Your task to perform on an android device: add a contact Image 0: 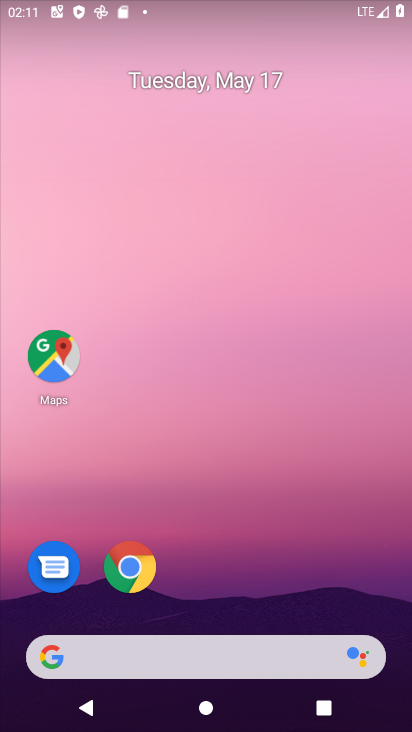
Step 0: drag from (393, 622) to (315, 28)
Your task to perform on an android device: add a contact Image 1: 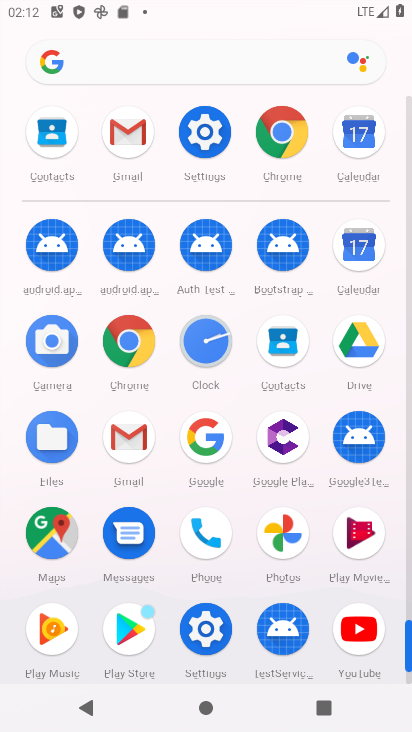
Step 1: click (283, 341)
Your task to perform on an android device: add a contact Image 2: 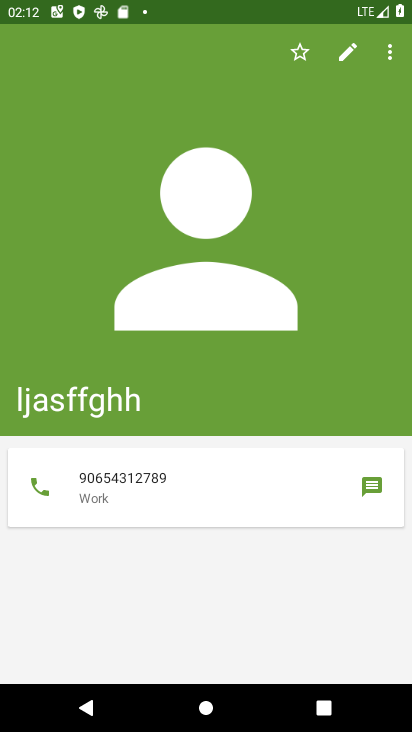
Step 2: press back button
Your task to perform on an android device: add a contact Image 3: 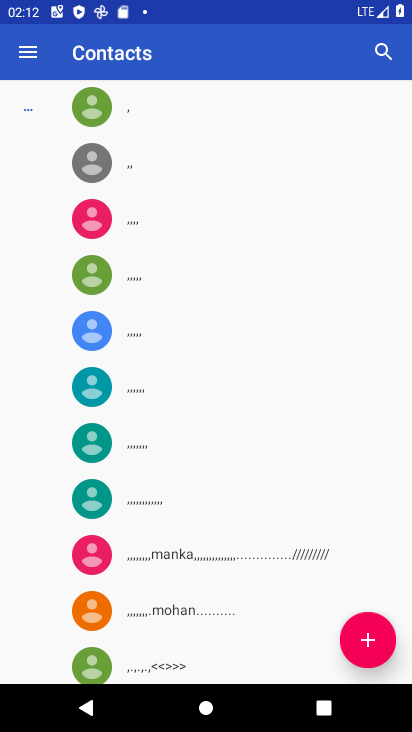
Step 3: click (371, 638)
Your task to perform on an android device: add a contact Image 4: 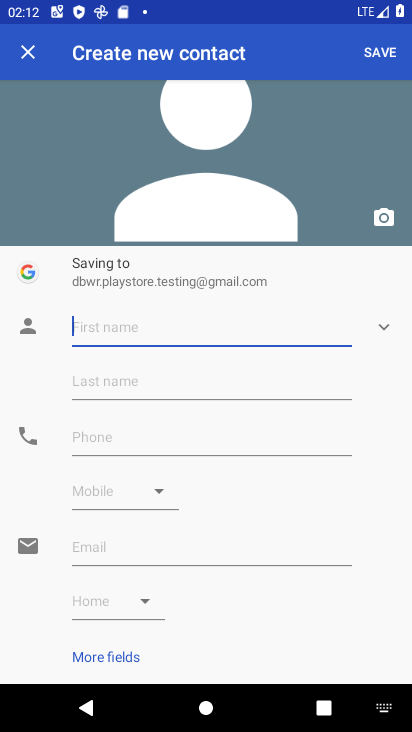
Step 4: type "lasfghjj"
Your task to perform on an android device: add a contact Image 5: 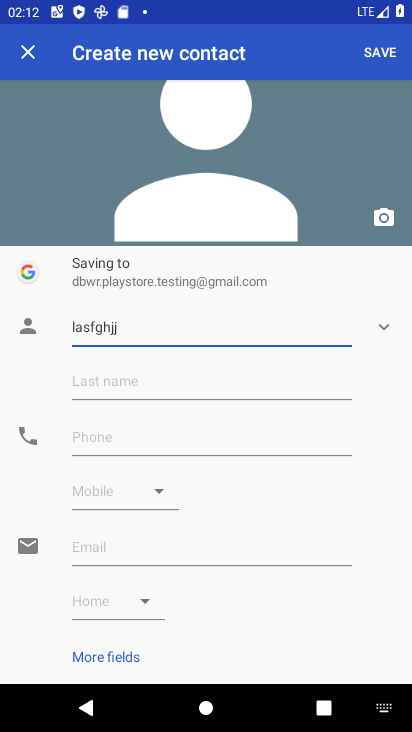
Step 5: click (135, 438)
Your task to perform on an android device: add a contact Image 6: 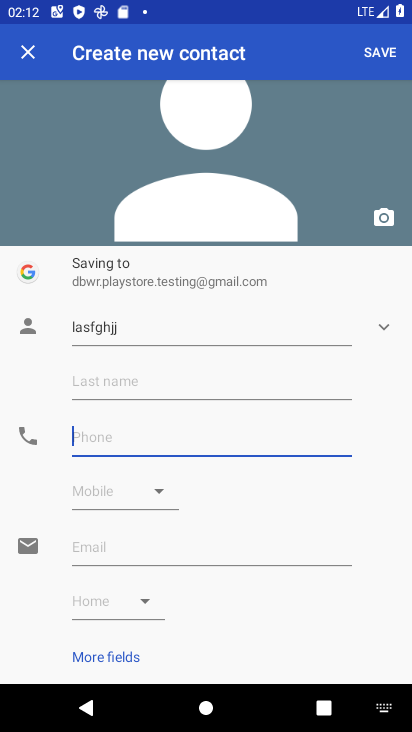
Step 6: type "0976125678"
Your task to perform on an android device: add a contact Image 7: 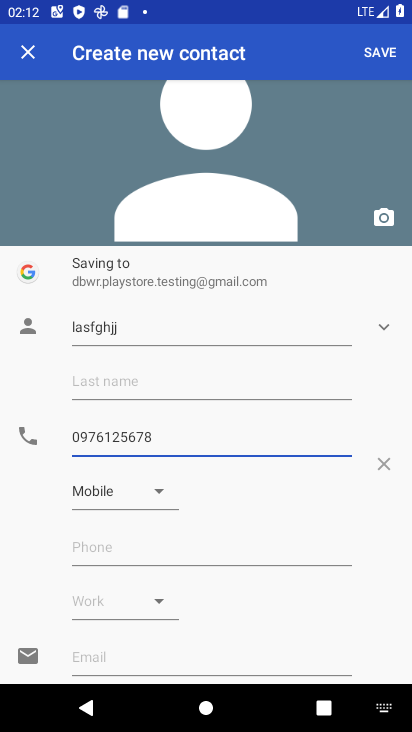
Step 7: click (376, 43)
Your task to perform on an android device: add a contact Image 8: 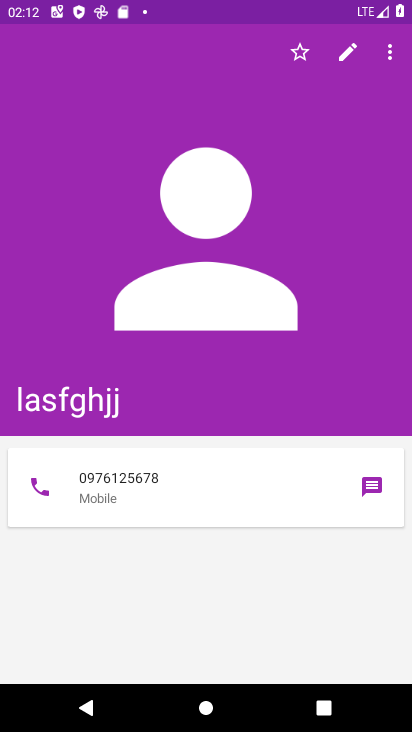
Step 8: task complete